Your task to perform on an android device: Go to Reddit.com Image 0: 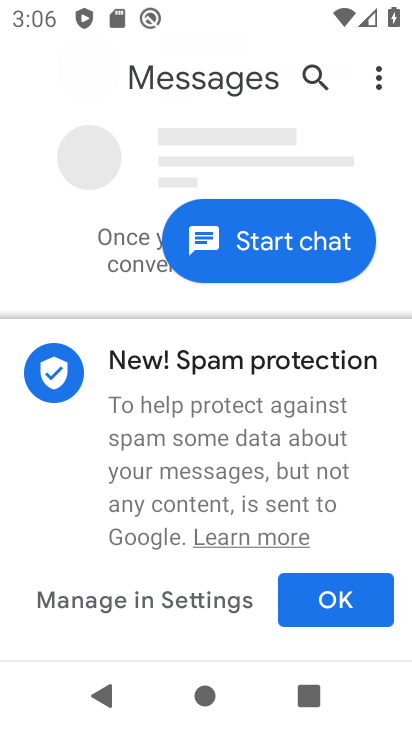
Step 0: press home button
Your task to perform on an android device: Go to Reddit.com Image 1: 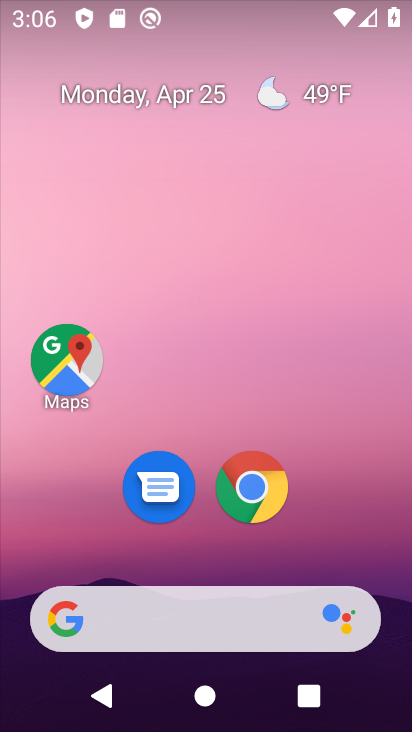
Step 1: click (250, 495)
Your task to perform on an android device: Go to Reddit.com Image 2: 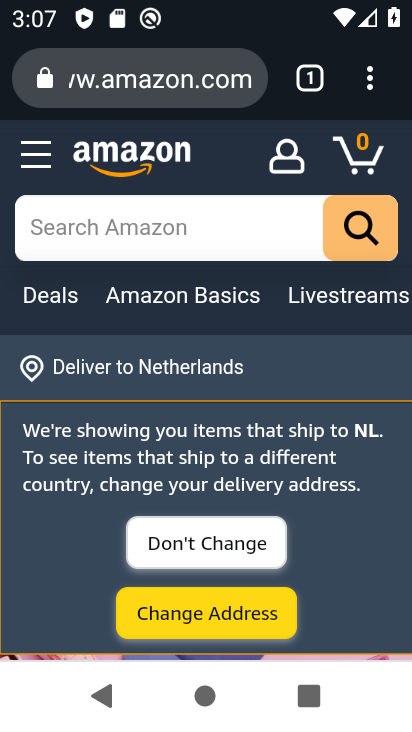
Step 2: click (183, 77)
Your task to perform on an android device: Go to Reddit.com Image 3: 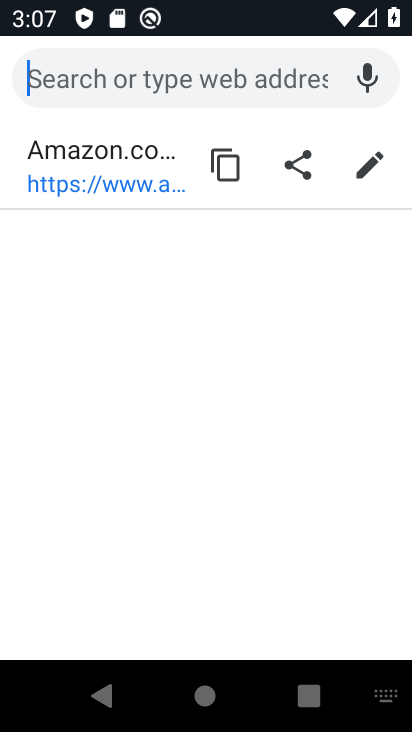
Step 3: type "reddit.com"
Your task to perform on an android device: Go to Reddit.com Image 4: 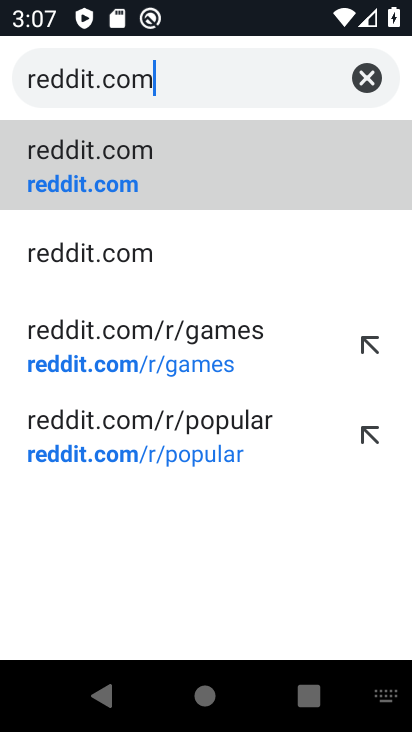
Step 4: click (94, 187)
Your task to perform on an android device: Go to Reddit.com Image 5: 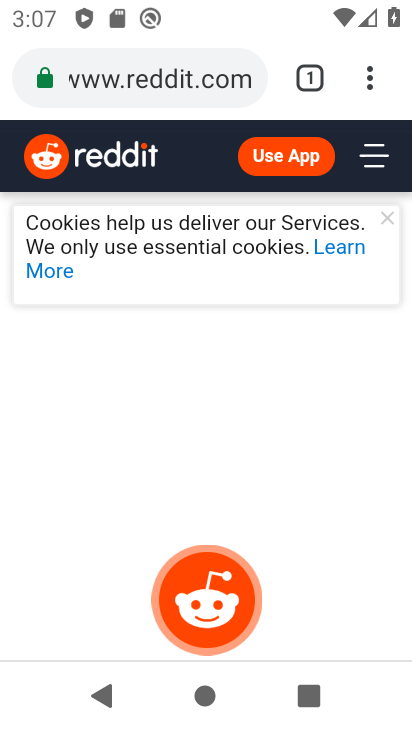
Step 5: task complete